Your task to perform on an android device: Open Youtube and go to "Your channel" Image 0: 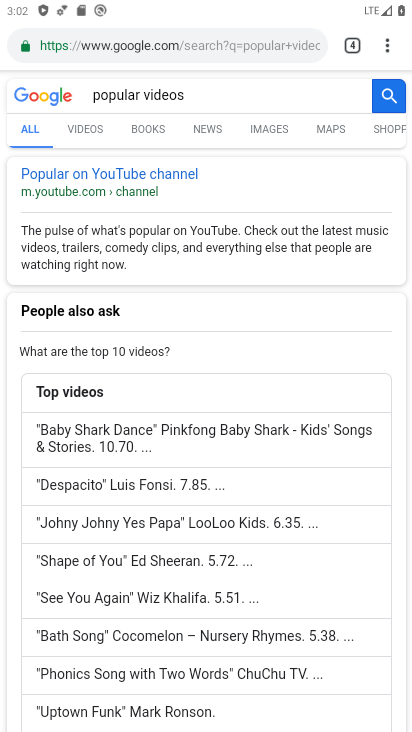
Step 0: press home button
Your task to perform on an android device: Open Youtube and go to "Your channel" Image 1: 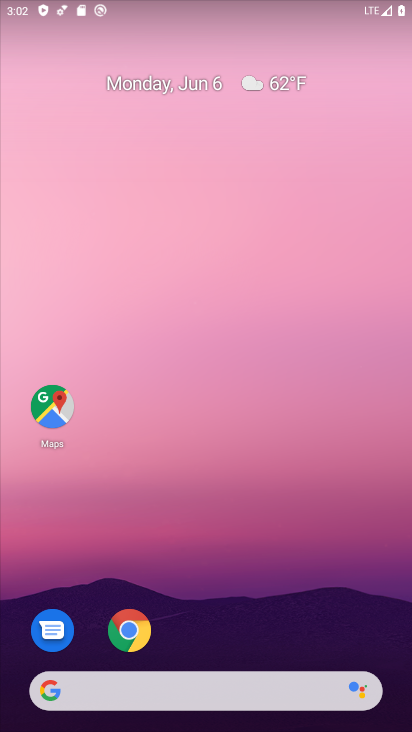
Step 1: drag from (311, 549) to (360, 3)
Your task to perform on an android device: Open Youtube and go to "Your channel" Image 2: 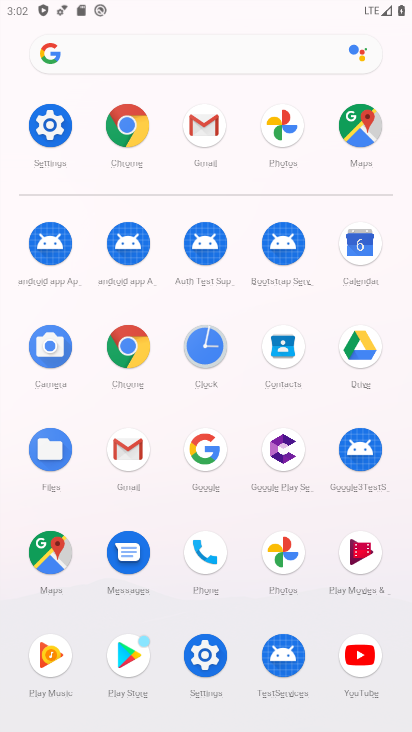
Step 2: click (362, 670)
Your task to perform on an android device: Open Youtube and go to "Your channel" Image 3: 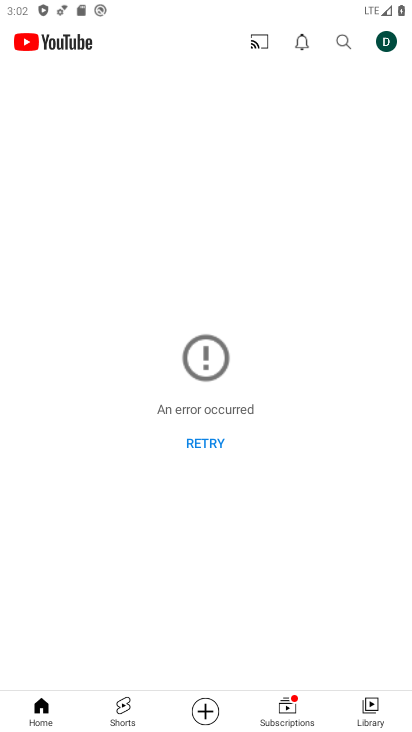
Step 3: click (387, 40)
Your task to perform on an android device: Open Youtube and go to "Your channel" Image 4: 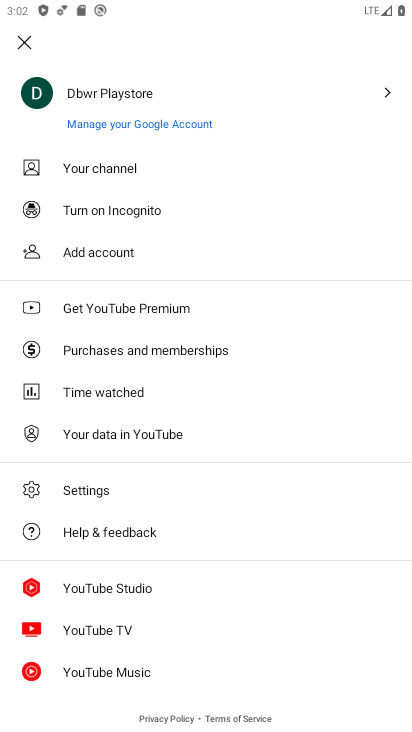
Step 4: click (92, 166)
Your task to perform on an android device: Open Youtube and go to "Your channel" Image 5: 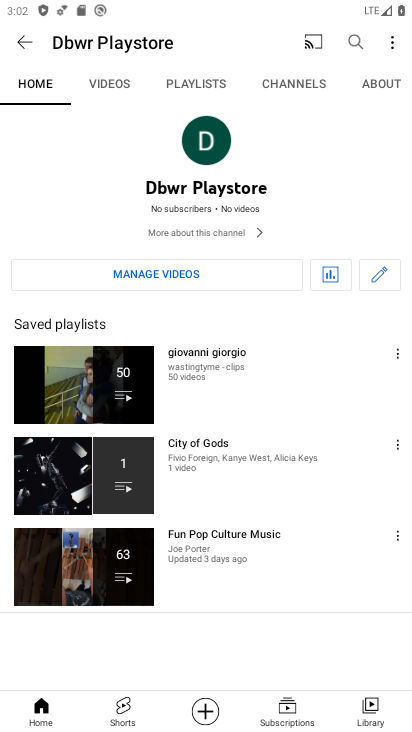
Step 5: task complete